Your task to perform on an android device: Go to CNN.com Image 0: 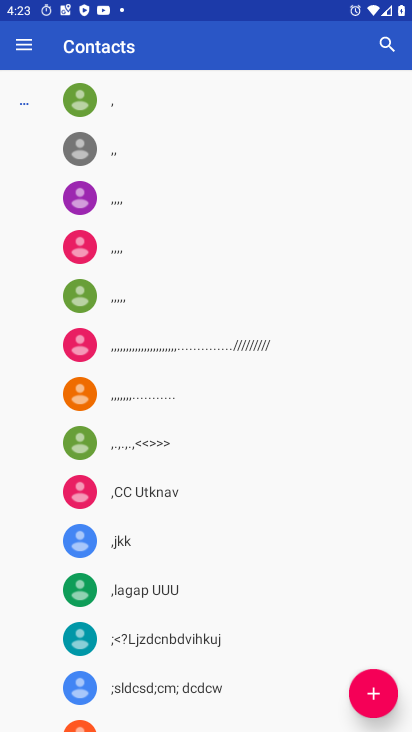
Step 0: press home button
Your task to perform on an android device: Go to CNN.com Image 1: 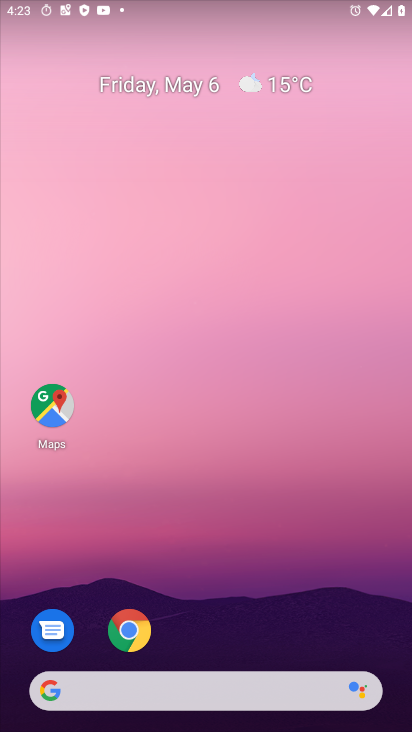
Step 1: click (174, 689)
Your task to perform on an android device: Go to CNN.com Image 2: 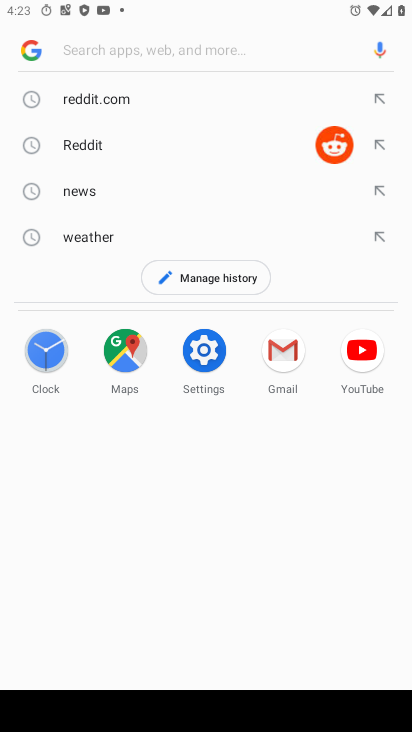
Step 2: type "cnn.com"
Your task to perform on an android device: Go to CNN.com Image 3: 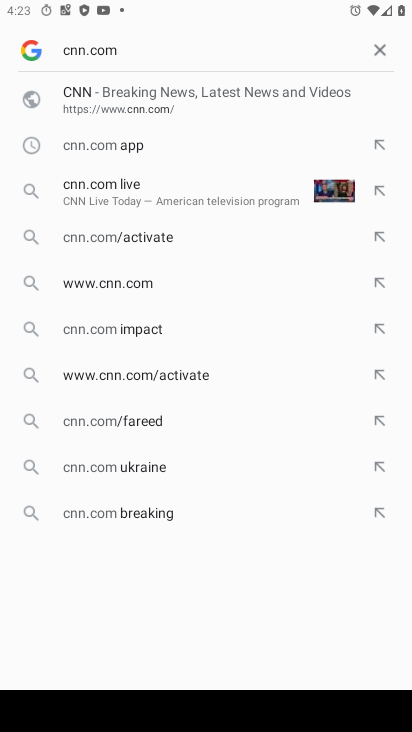
Step 3: click (154, 91)
Your task to perform on an android device: Go to CNN.com Image 4: 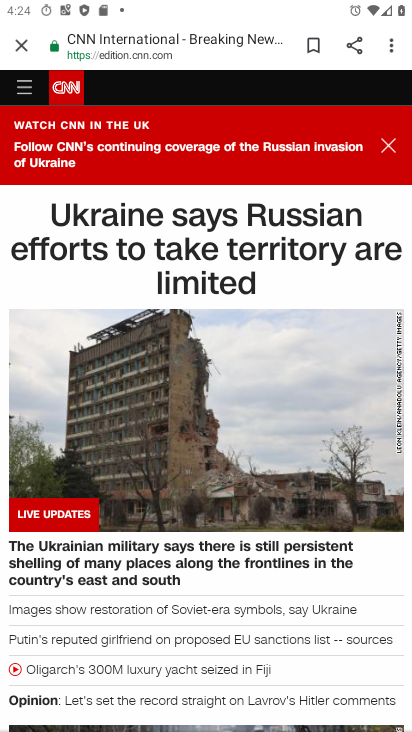
Step 4: task complete